Your task to perform on an android device: toggle priority inbox in the gmail app Image 0: 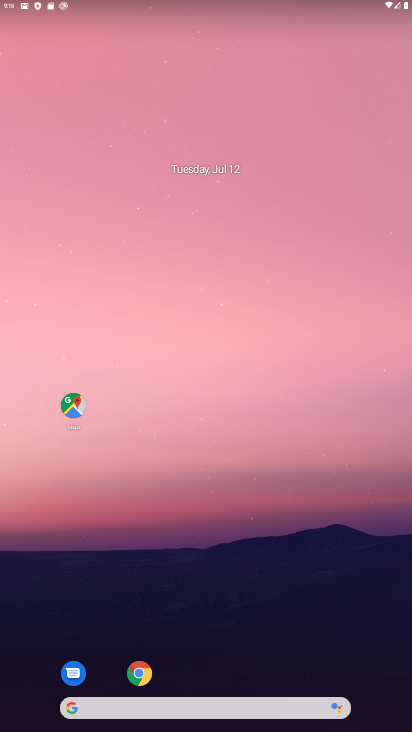
Step 0: drag from (9, 701) to (145, 169)
Your task to perform on an android device: toggle priority inbox in the gmail app Image 1: 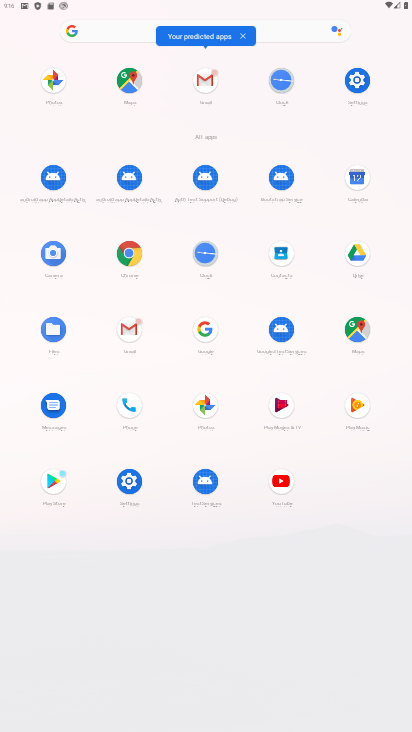
Step 1: click (203, 84)
Your task to perform on an android device: toggle priority inbox in the gmail app Image 2: 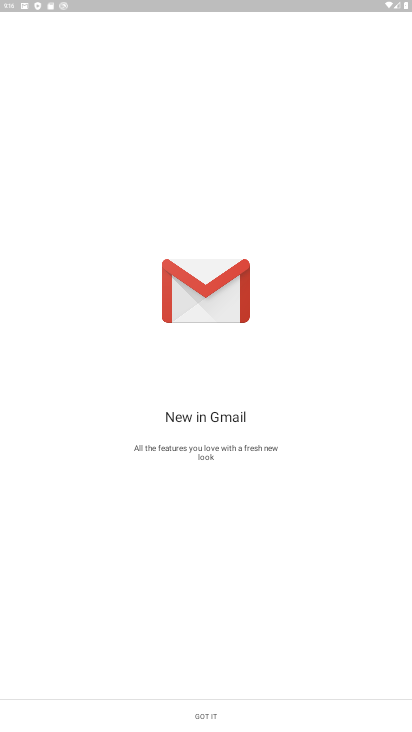
Step 2: click (204, 712)
Your task to perform on an android device: toggle priority inbox in the gmail app Image 3: 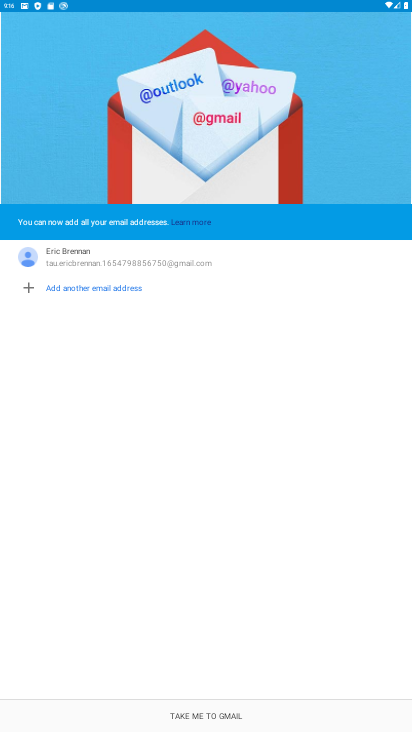
Step 3: click (194, 718)
Your task to perform on an android device: toggle priority inbox in the gmail app Image 4: 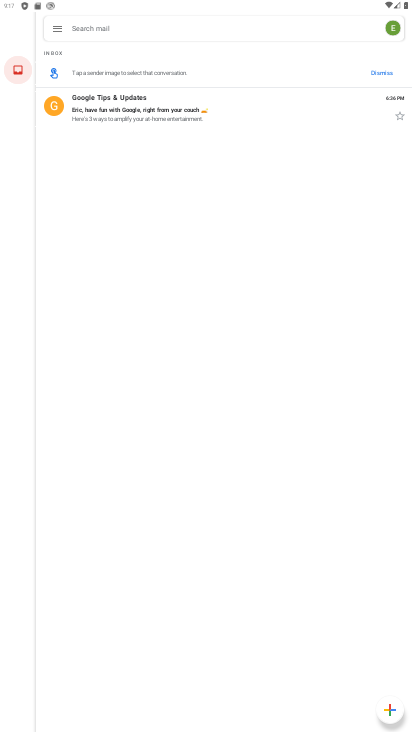
Step 4: task complete